Your task to perform on an android device: open chrome and create a bookmark for the current page Image 0: 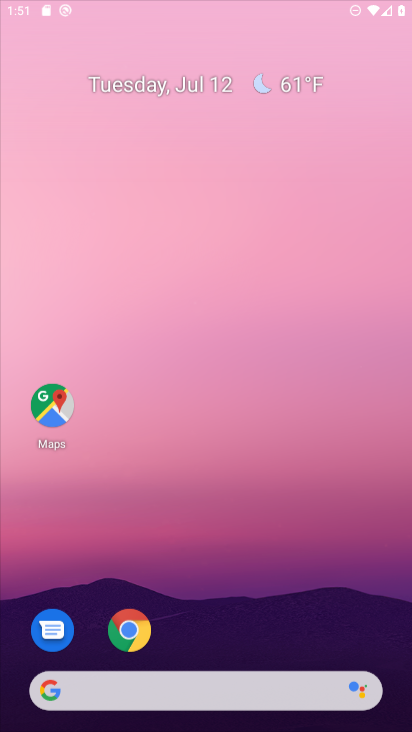
Step 0: click (119, 612)
Your task to perform on an android device: open chrome and create a bookmark for the current page Image 1: 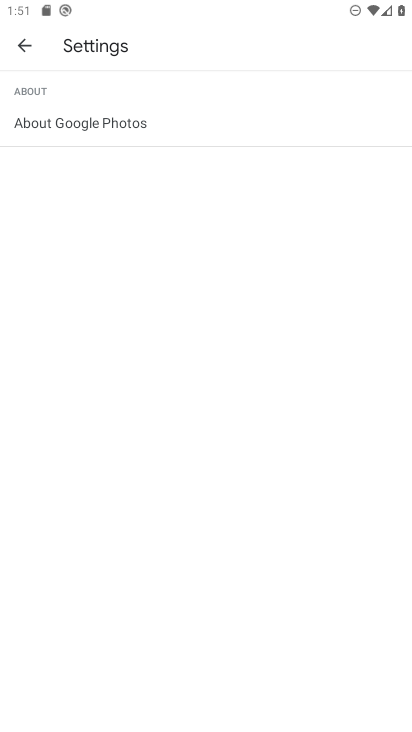
Step 1: click (28, 39)
Your task to perform on an android device: open chrome and create a bookmark for the current page Image 2: 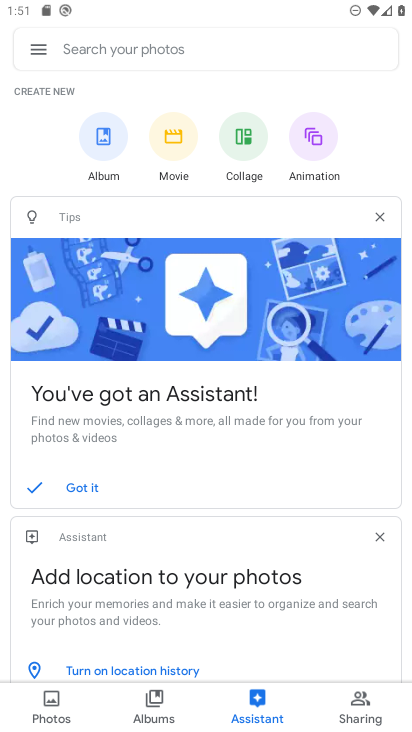
Step 2: press home button
Your task to perform on an android device: open chrome and create a bookmark for the current page Image 3: 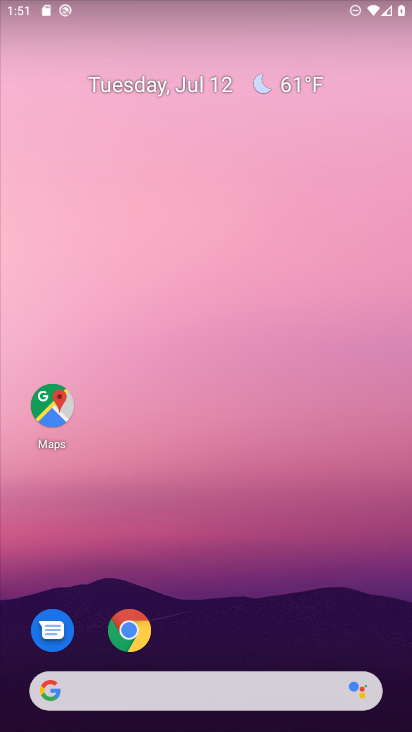
Step 3: click (120, 621)
Your task to perform on an android device: open chrome and create a bookmark for the current page Image 4: 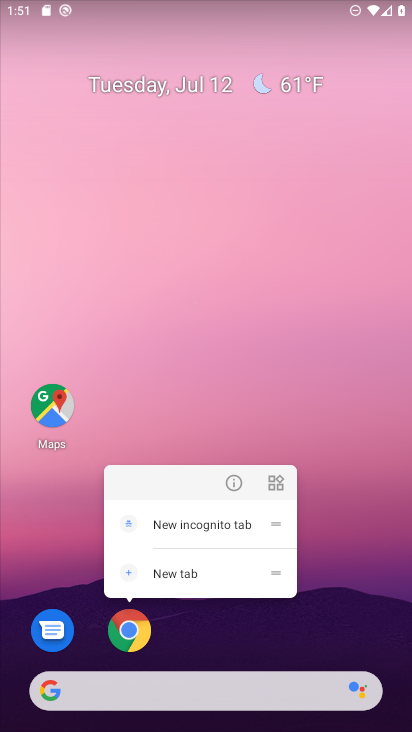
Step 4: click (126, 635)
Your task to perform on an android device: open chrome and create a bookmark for the current page Image 5: 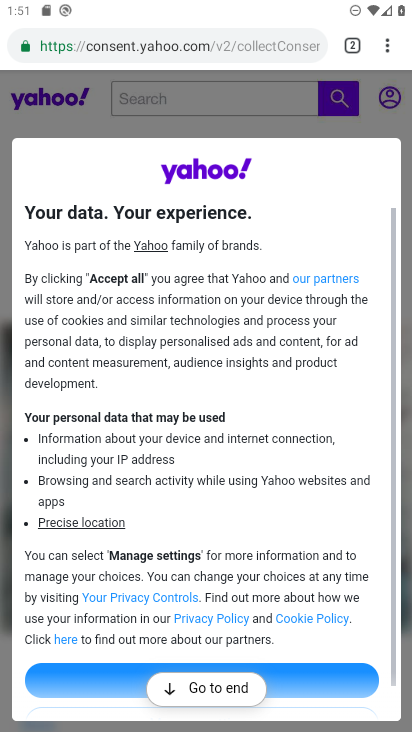
Step 5: click (381, 39)
Your task to perform on an android device: open chrome and create a bookmark for the current page Image 6: 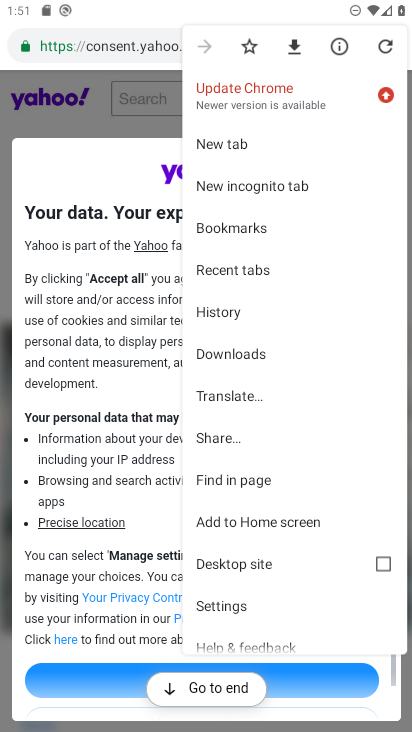
Step 6: click (249, 50)
Your task to perform on an android device: open chrome and create a bookmark for the current page Image 7: 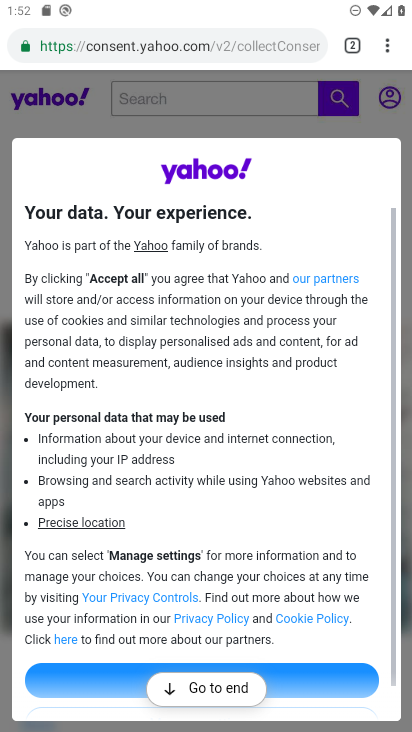
Step 7: task complete